Your task to perform on an android device: turn on translation in the chrome app Image 0: 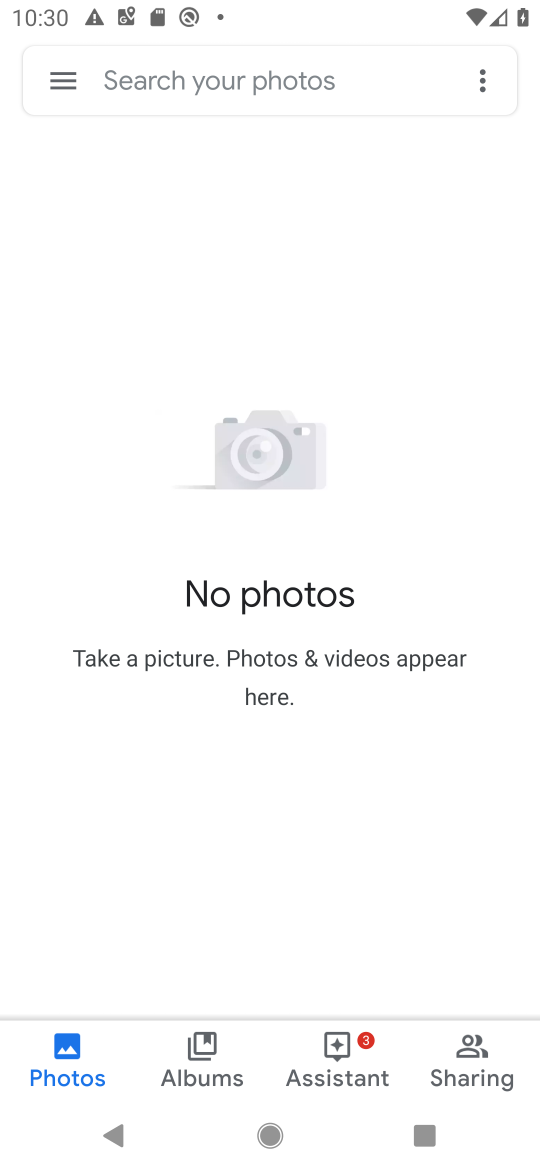
Step 0: press home button
Your task to perform on an android device: turn on translation in the chrome app Image 1: 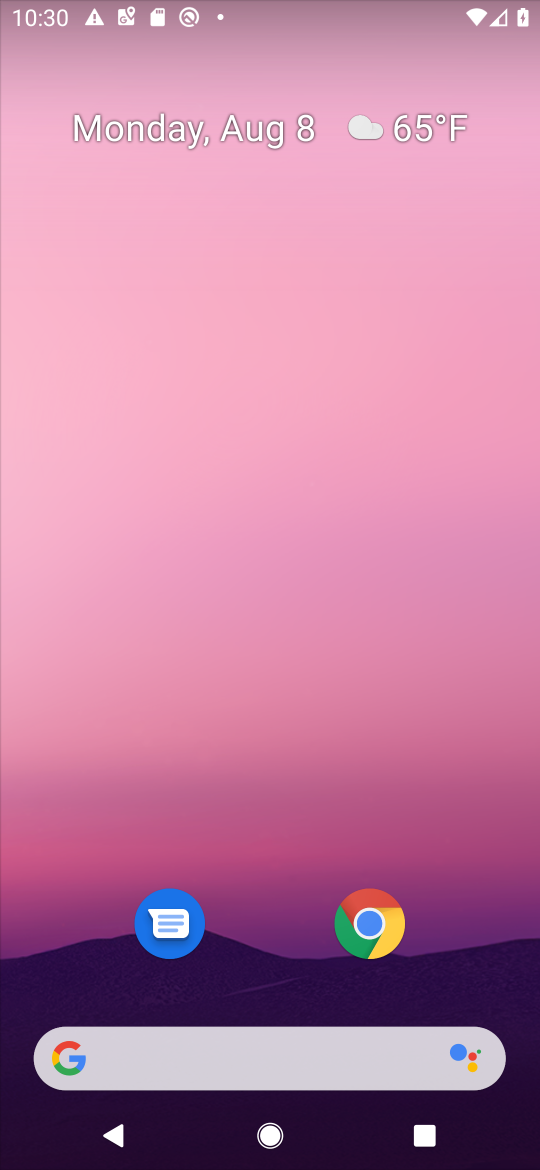
Step 1: click (381, 929)
Your task to perform on an android device: turn on translation in the chrome app Image 2: 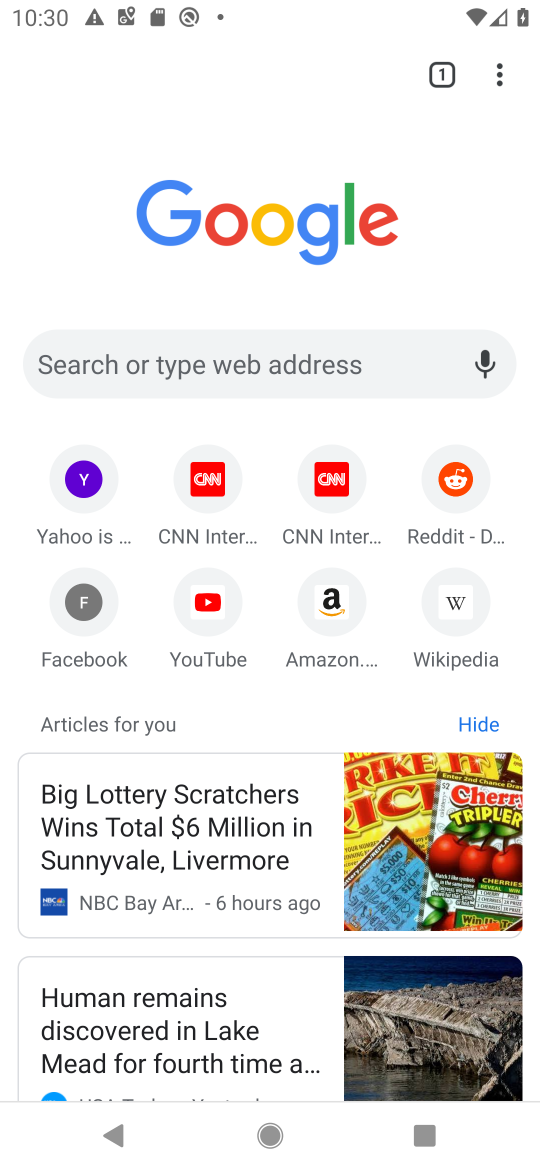
Step 2: click (500, 85)
Your task to perform on an android device: turn on translation in the chrome app Image 3: 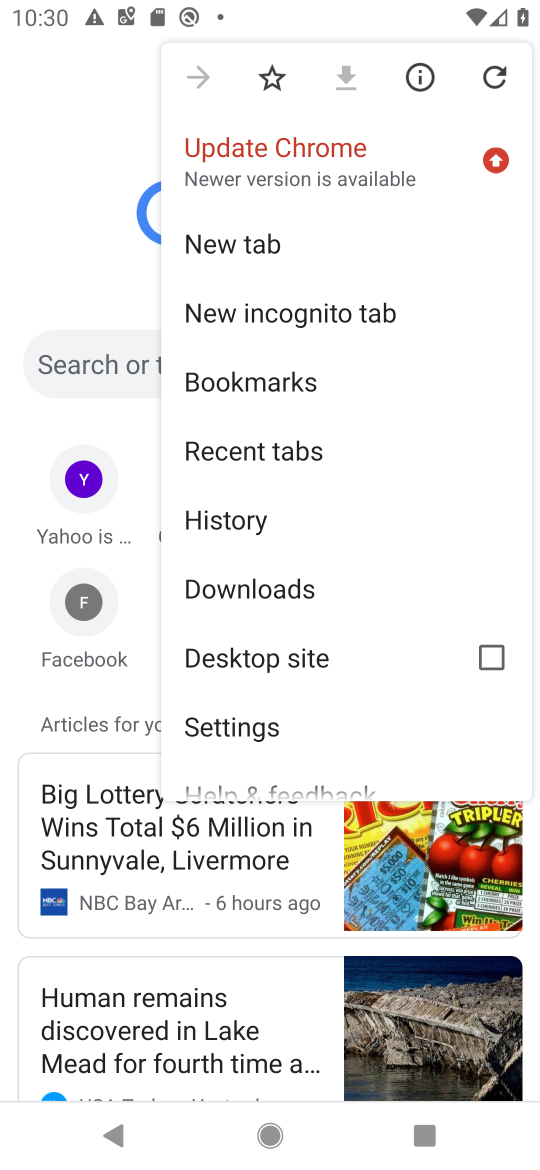
Step 3: click (212, 724)
Your task to perform on an android device: turn on translation in the chrome app Image 4: 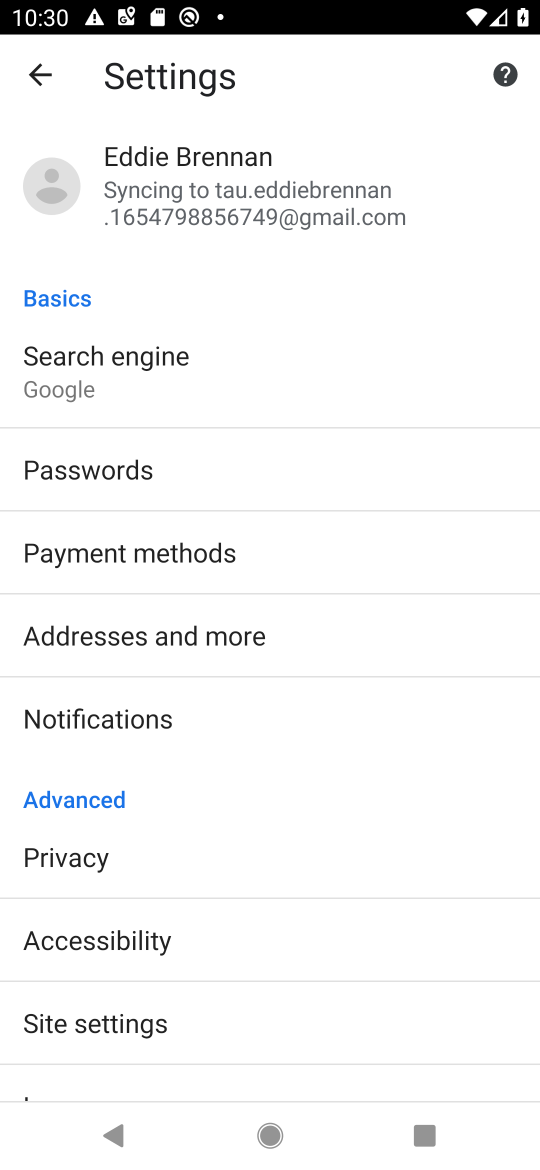
Step 4: drag from (325, 953) to (282, 468)
Your task to perform on an android device: turn on translation in the chrome app Image 5: 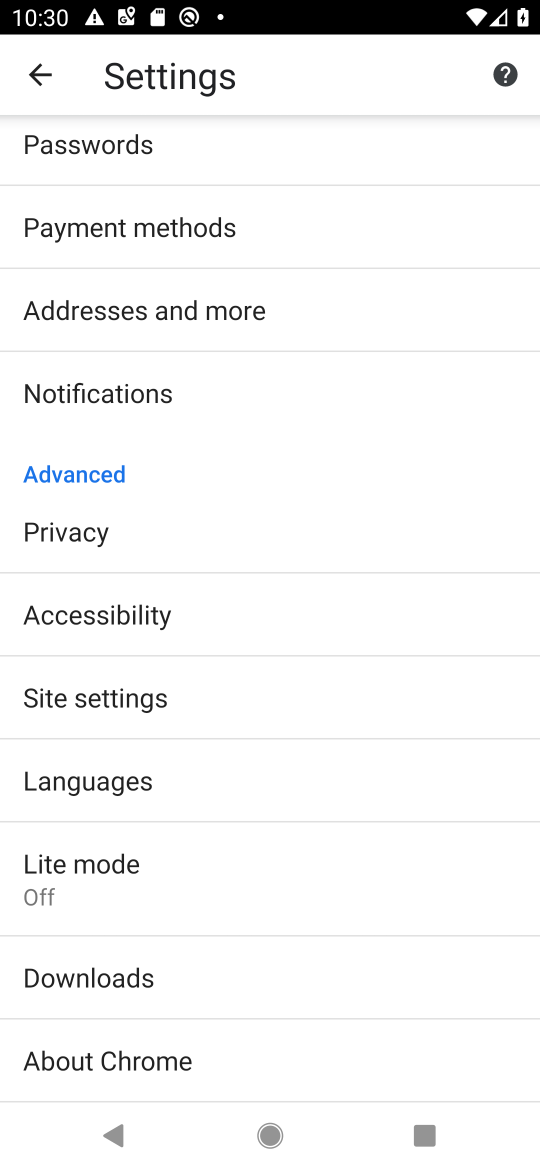
Step 5: click (106, 777)
Your task to perform on an android device: turn on translation in the chrome app Image 6: 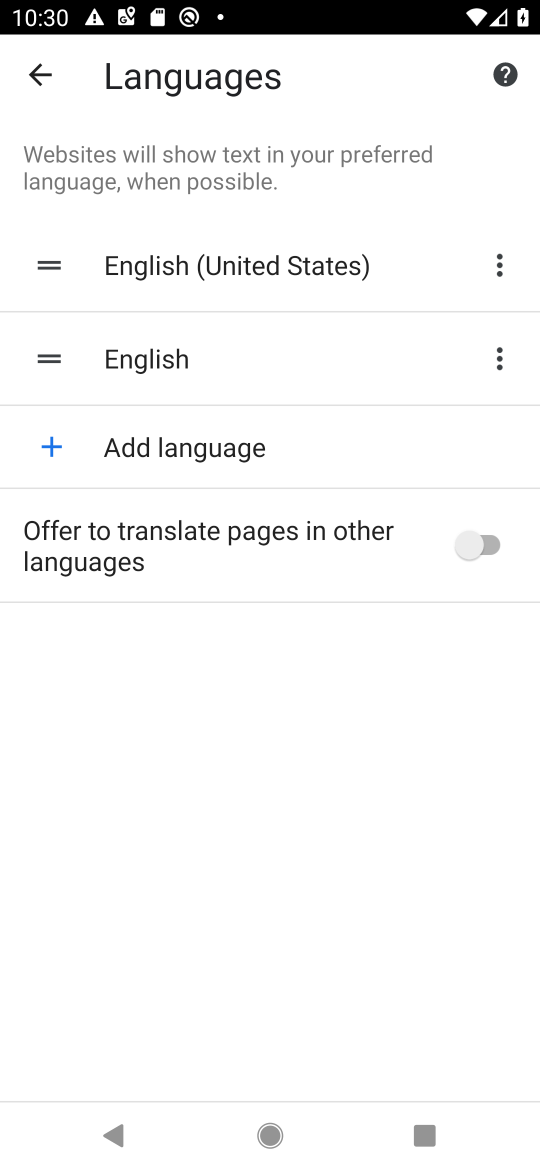
Step 6: click (466, 562)
Your task to perform on an android device: turn on translation in the chrome app Image 7: 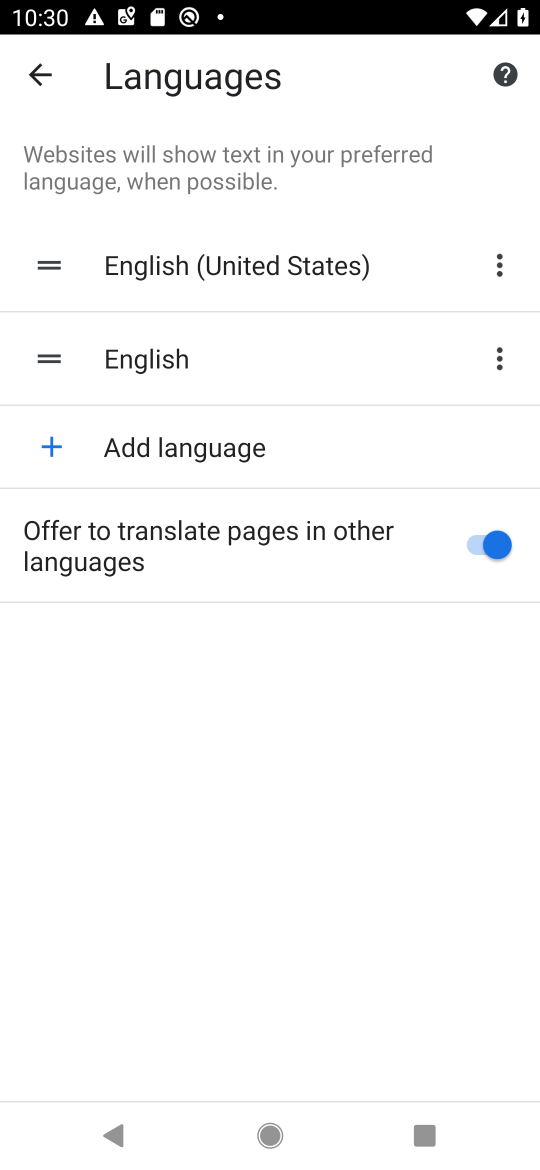
Step 7: task complete